Your task to perform on an android device: Show me recent news Image 0: 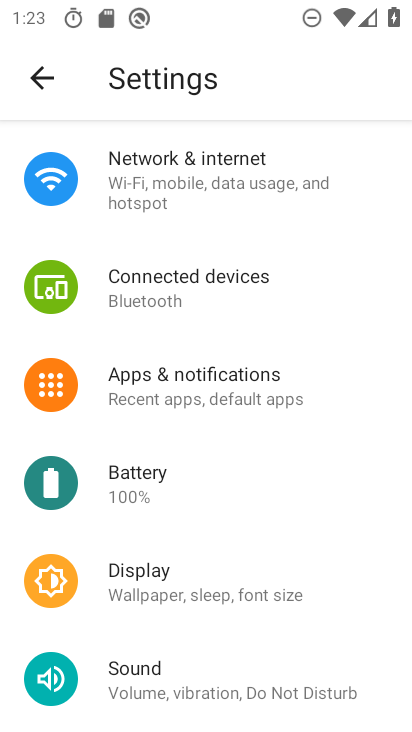
Step 0: press home button
Your task to perform on an android device: Show me recent news Image 1: 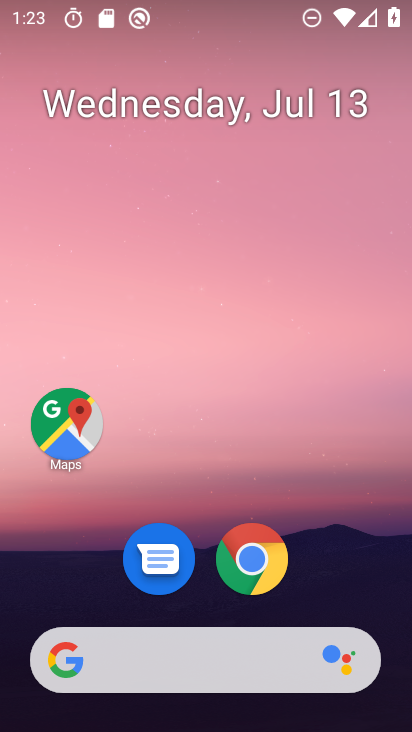
Step 1: drag from (209, 657) to (204, 232)
Your task to perform on an android device: Show me recent news Image 2: 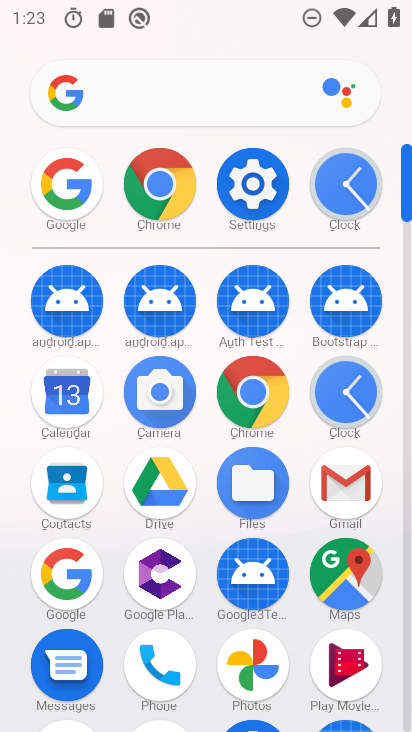
Step 2: click (87, 576)
Your task to perform on an android device: Show me recent news Image 3: 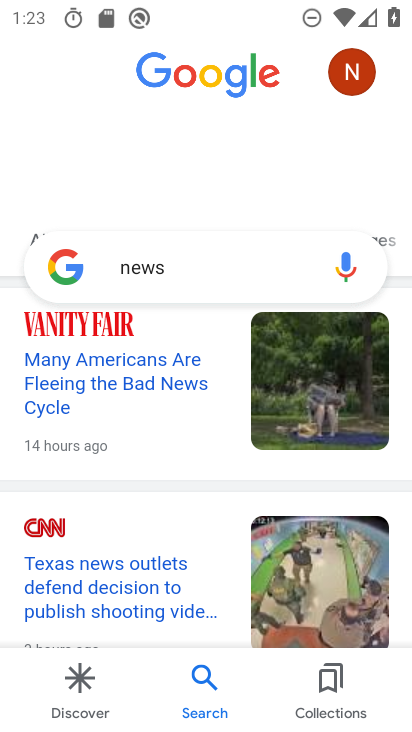
Step 3: task complete